Your task to perform on an android device: allow notifications from all sites in the chrome app Image 0: 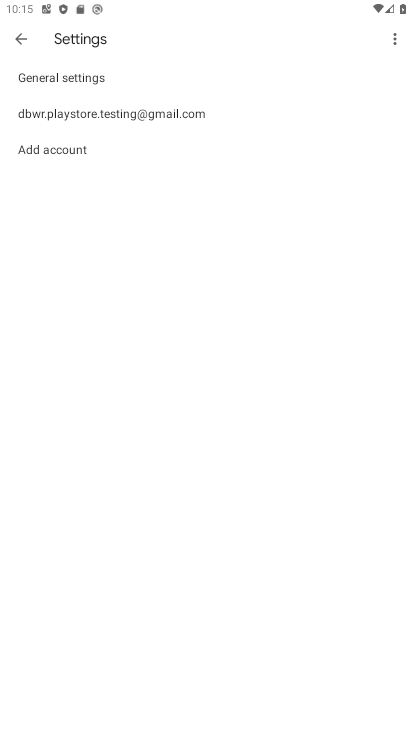
Step 0: press home button
Your task to perform on an android device: allow notifications from all sites in the chrome app Image 1: 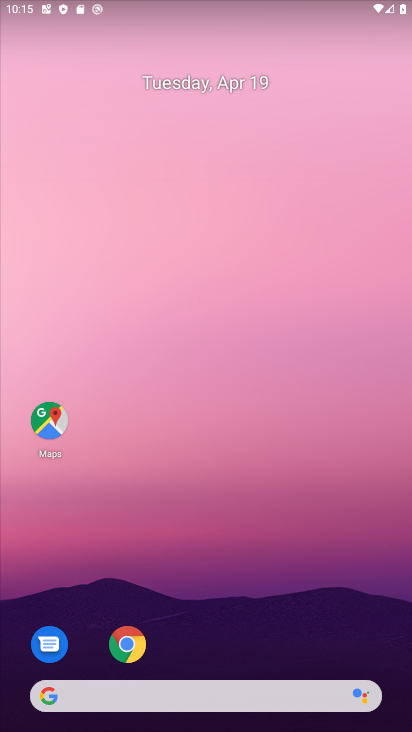
Step 1: click (121, 643)
Your task to perform on an android device: allow notifications from all sites in the chrome app Image 2: 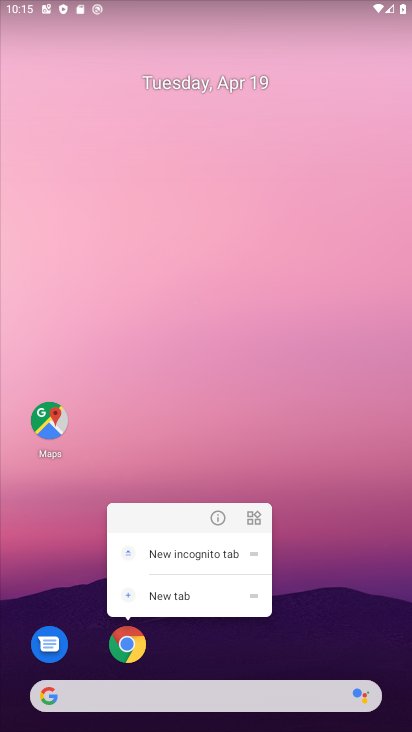
Step 2: click (121, 643)
Your task to perform on an android device: allow notifications from all sites in the chrome app Image 3: 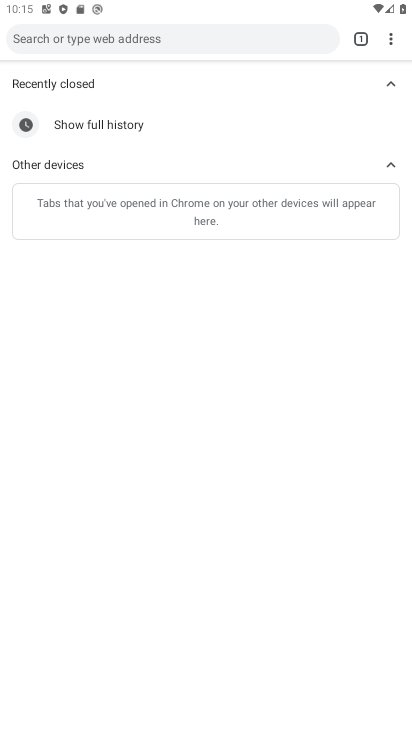
Step 3: click (392, 36)
Your task to perform on an android device: allow notifications from all sites in the chrome app Image 4: 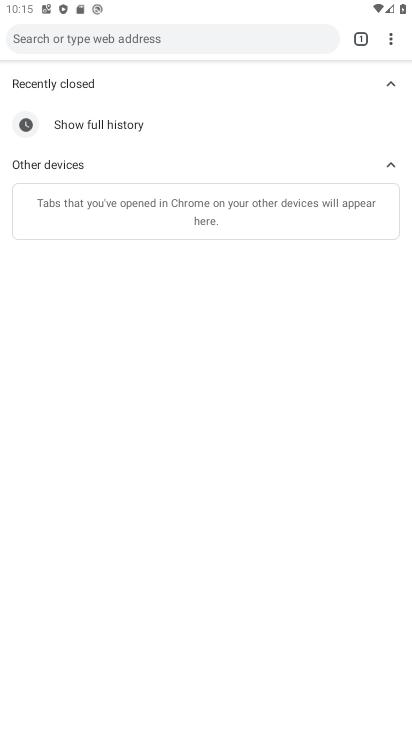
Step 4: click (391, 36)
Your task to perform on an android device: allow notifications from all sites in the chrome app Image 5: 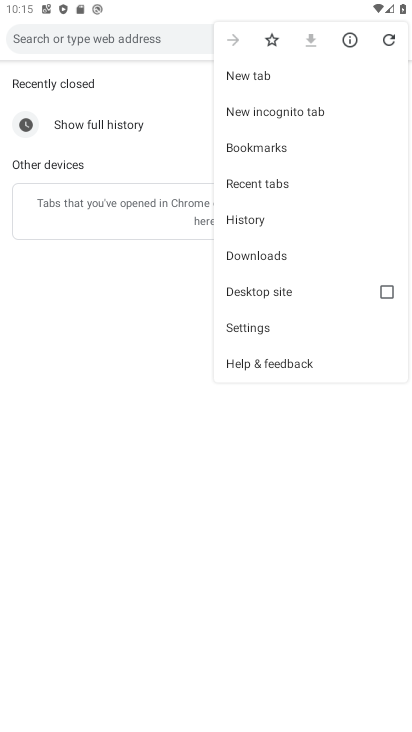
Step 5: click (280, 321)
Your task to perform on an android device: allow notifications from all sites in the chrome app Image 6: 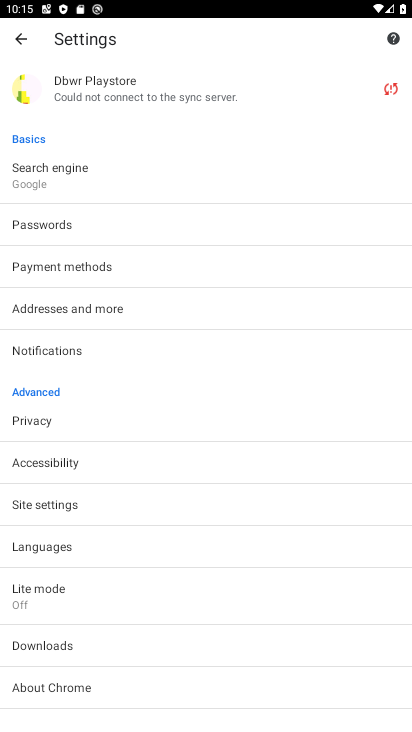
Step 6: click (78, 496)
Your task to perform on an android device: allow notifications from all sites in the chrome app Image 7: 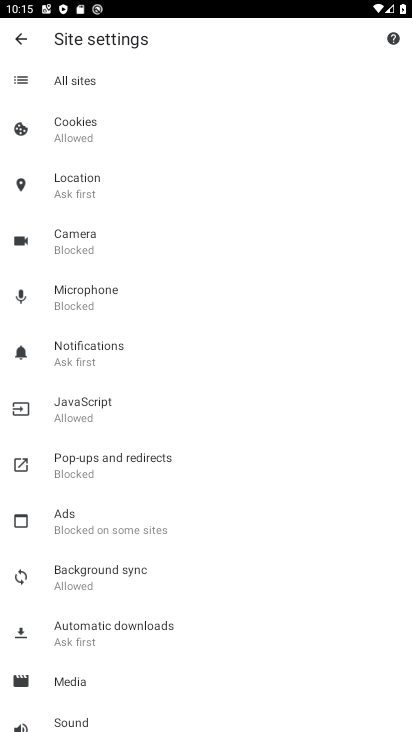
Step 7: click (97, 353)
Your task to perform on an android device: allow notifications from all sites in the chrome app Image 8: 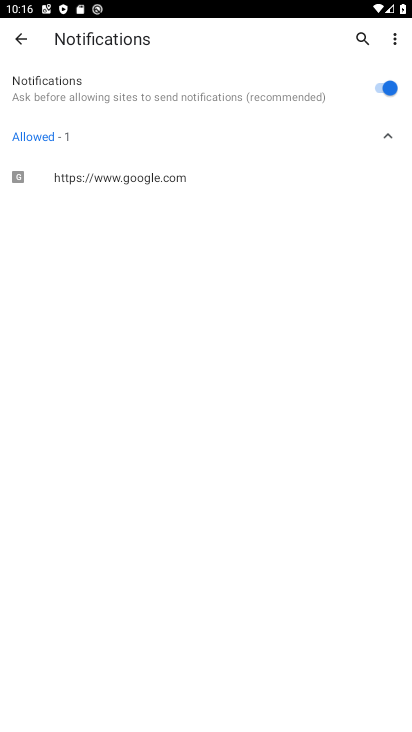
Step 8: task complete